Your task to perform on an android device: search for starred emails in the gmail app Image 0: 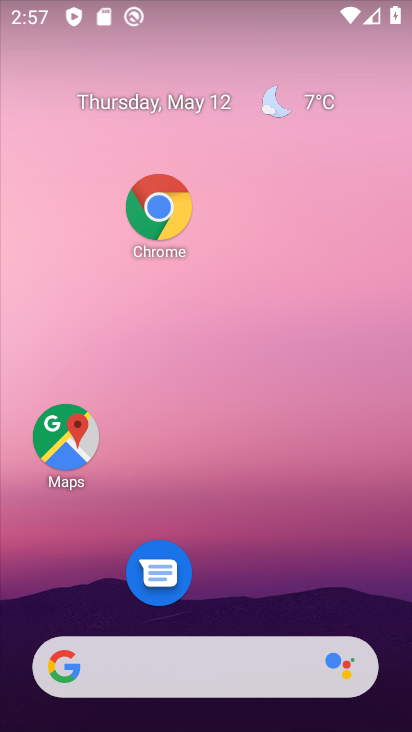
Step 0: drag from (237, 584) to (292, 124)
Your task to perform on an android device: search for starred emails in the gmail app Image 1: 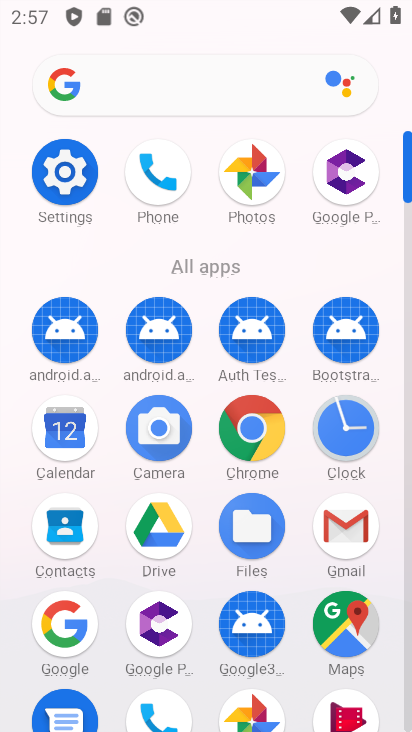
Step 1: click (348, 533)
Your task to perform on an android device: search for starred emails in the gmail app Image 2: 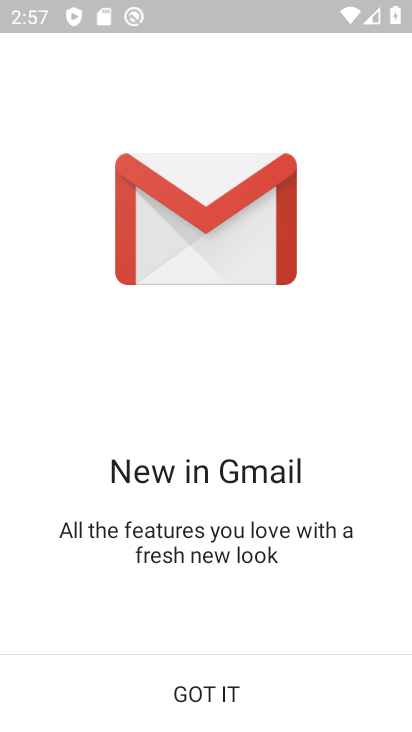
Step 2: click (214, 695)
Your task to perform on an android device: search for starred emails in the gmail app Image 3: 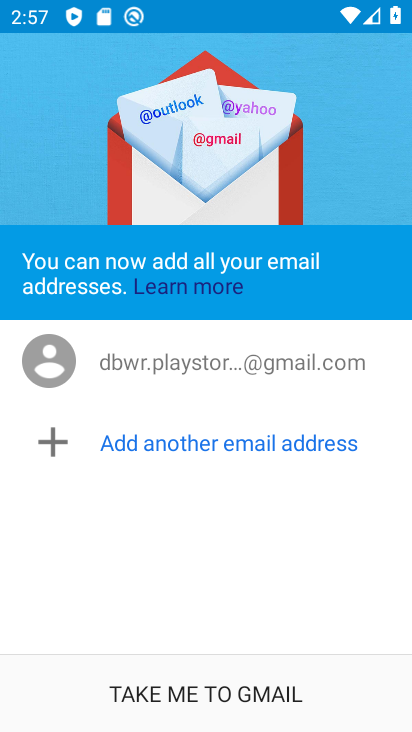
Step 3: click (211, 677)
Your task to perform on an android device: search for starred emails in the gmail app Image 4: 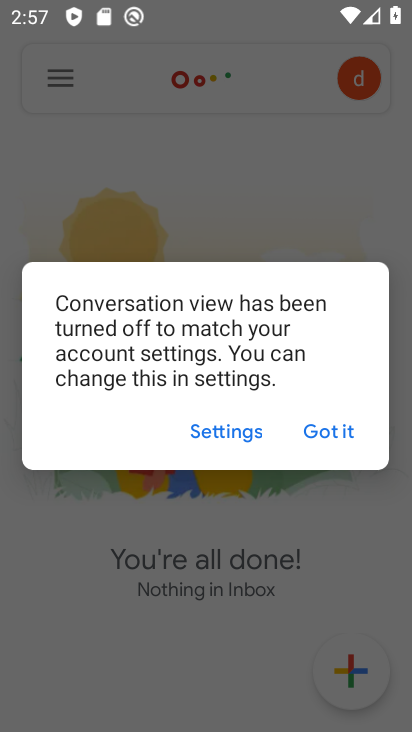
Step 4: click (335, 425)
Your task to perform on an android device: search for starred emails in the gmail app Image 5: 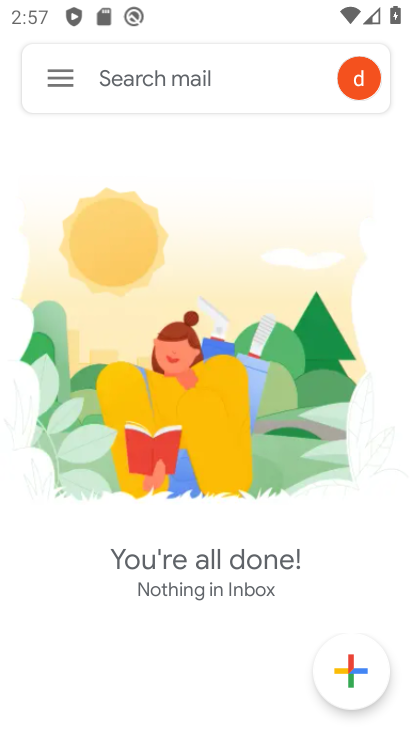
Step 5: click (32, 84)
Your task to perform on an android device: search for starred emails in the gmail app Image 6: 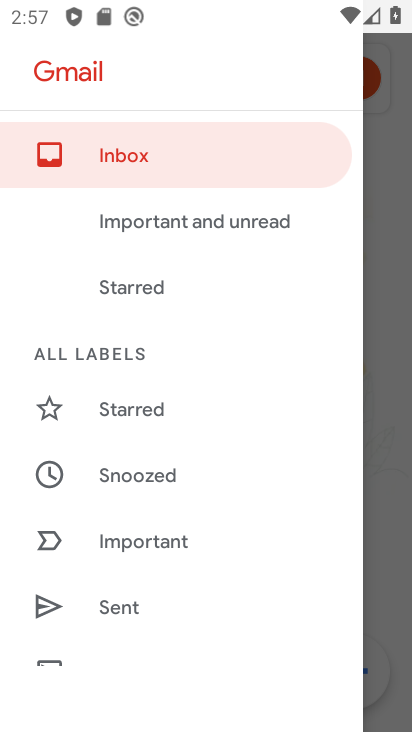
Step 6: click (138, 295)
Your task to perform on an android device: search for starred emails in the gmail app Image 7: 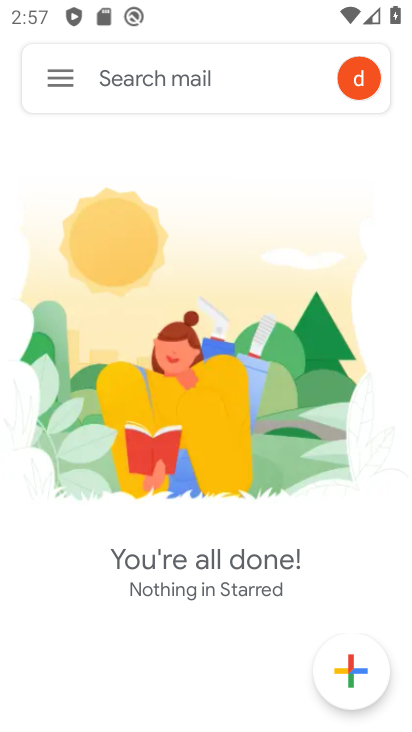
Step 7: task complete